Your task to perform on an android device: Go to sound settings Image 0: 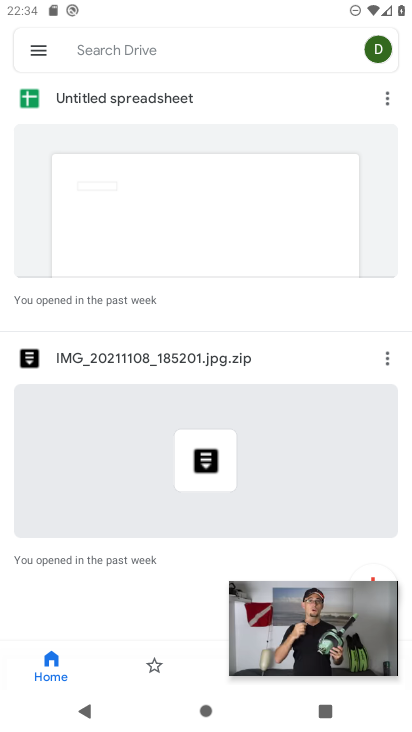
Step 0: press home button
Your task to perform on an android device: Go to sound settings Image 1: 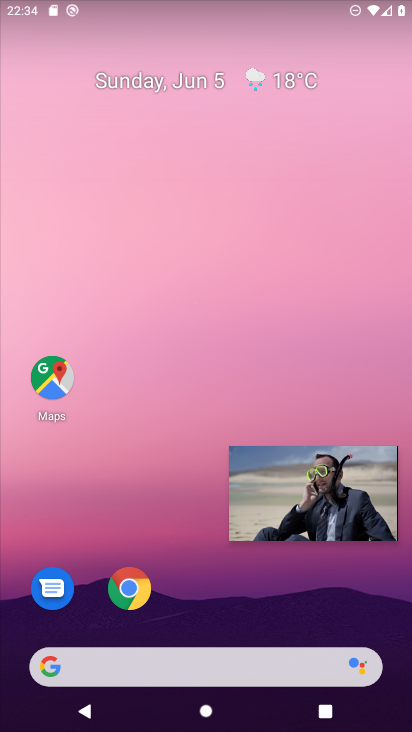
Step 1: drag from (199, 435) to (229, 94)
Your task to perform on an android device: Go to sound settings Image 2: 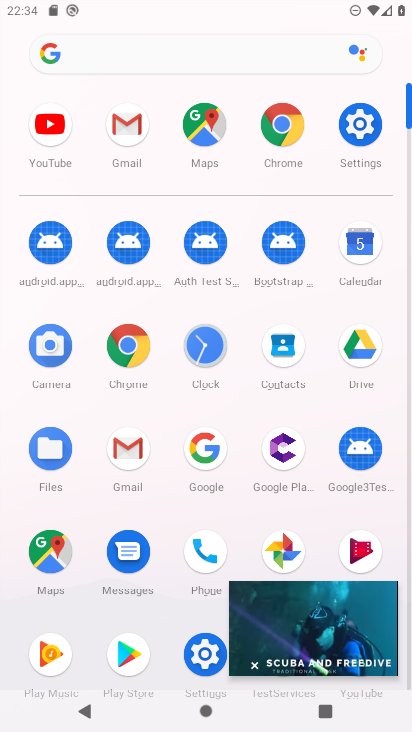
Step 2: click (352, 131)
Your task to perform on an android device: Go to sound settings Image 3: 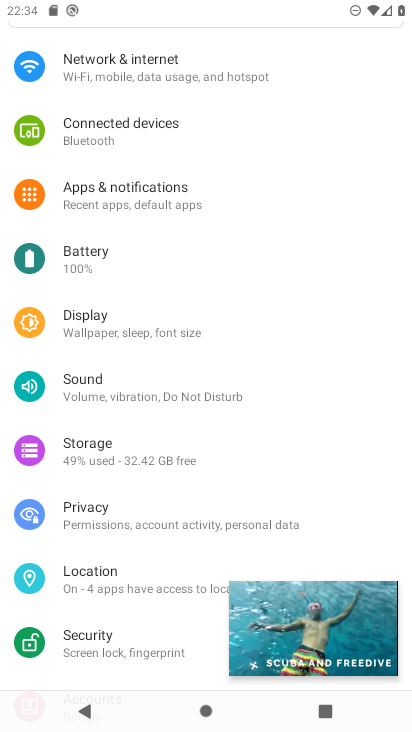
Step 3: drag from (315, 418) to (324, 309)
Your task to perform on an android device: Go to sound settings Image 4: 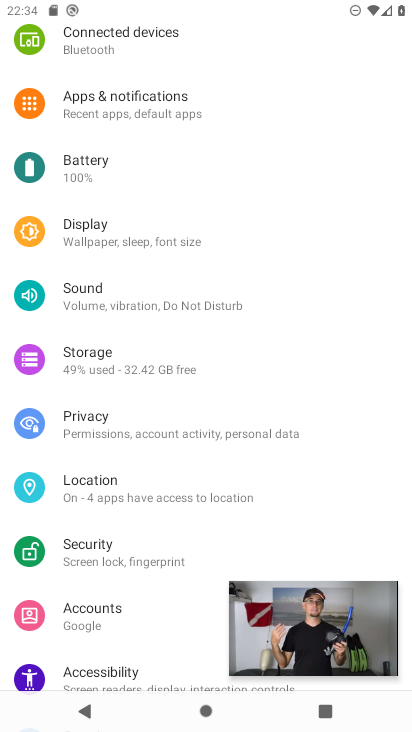
Step 4: drag from (330, 399) to (334, 273)
Your task to perform on an android device: Go to sound settings Image 5: 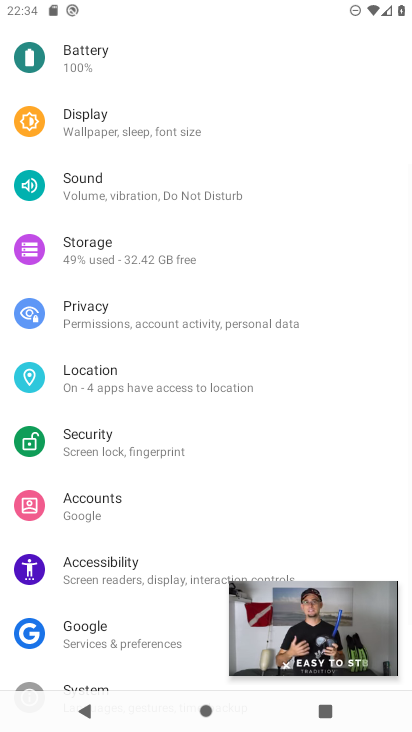
Step 5: drag from (334, 391) to (344, 272)
Your task to perform on an android device: Go to sound settings Image 6: 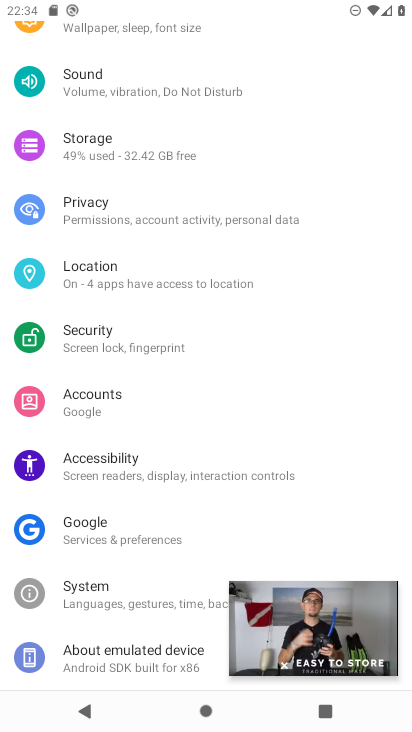
Step 6: drag from (331, 389) to (323, 255)
Your task to perform on an android device: Go to sound settings Image 7: 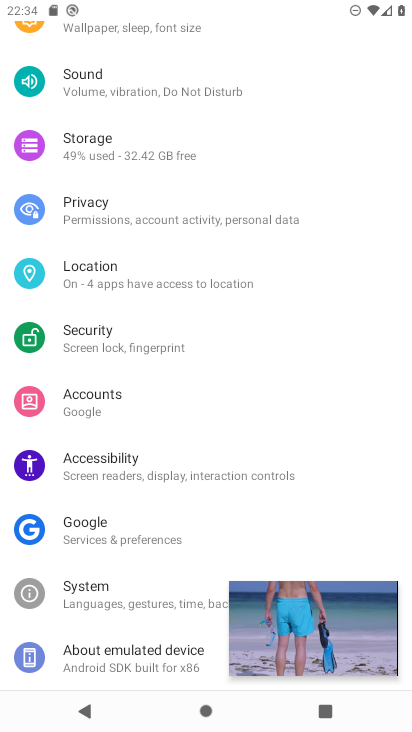
Step 7: drag from (342, 153) to (357, 253)
Your task to perform on an android device: Go to sound settings Image 8: 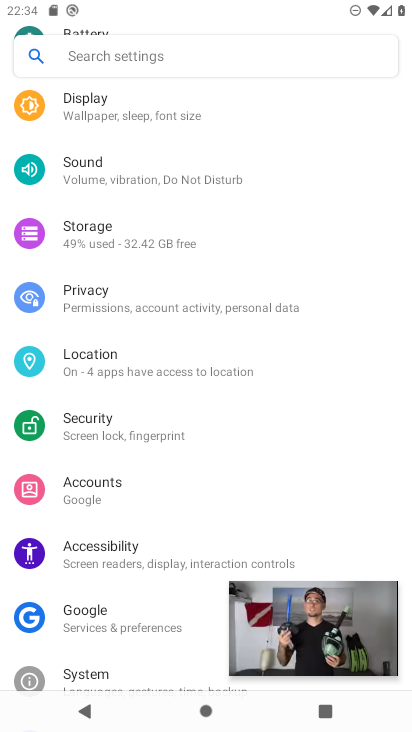
Step 8: drag from (349, 177) to (353, 274)
Your task to perform on an android device: Go to sound settings Image 9: 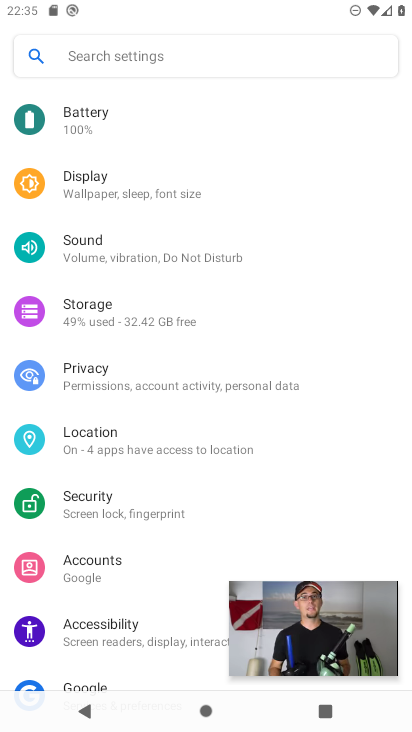
Step 9: drag from (330, 181) to (327, 283)
Your task to perform on an android device: Go to sound settings Image 10: 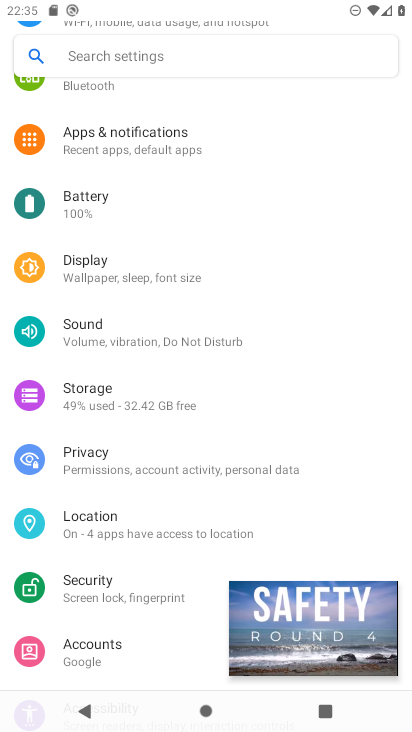
Step 10: click (249, 339)
Your task to perform on an android device: Go to sound settings Image 11: 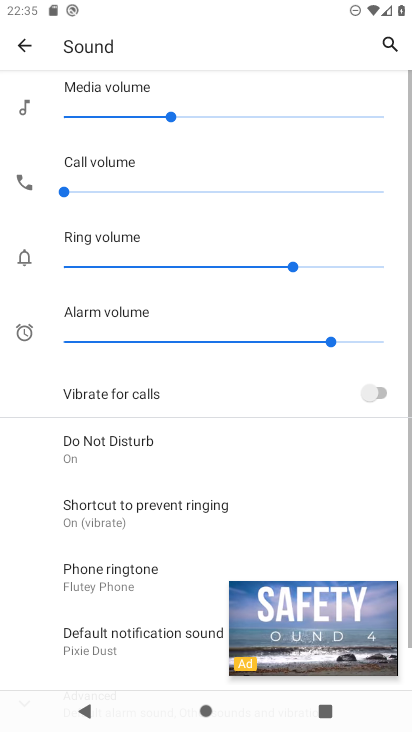
Step 11: task complete